Your task to perform on an android device: Go to privacy settings Image 0: 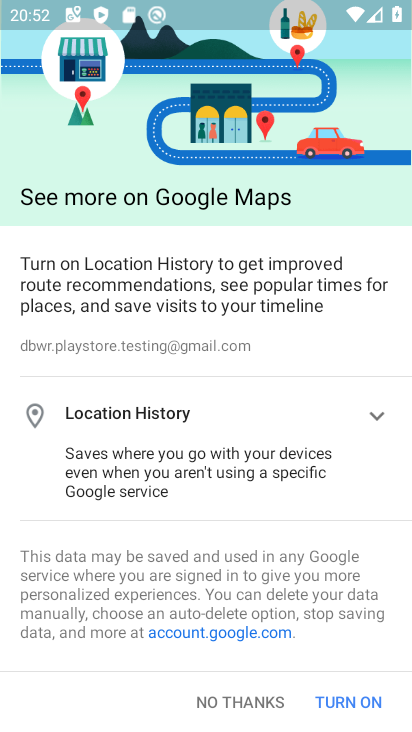
Step 0: press back button
Your task to perform on an android device: Go to privacy settings Image 1: 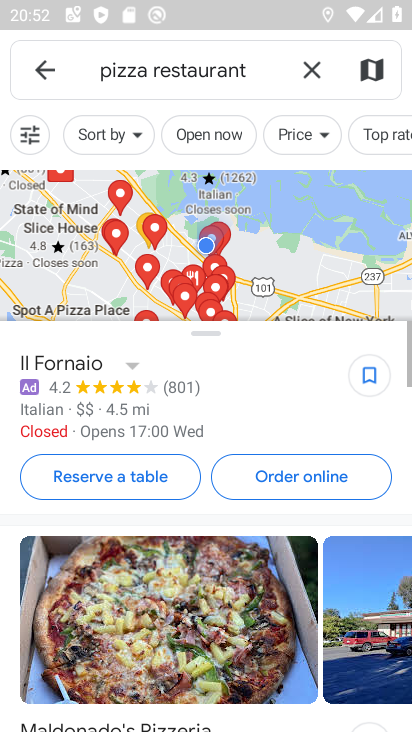
Step 1: press back button
Your task to perform on an android device: Go to privacy settings Image 2: 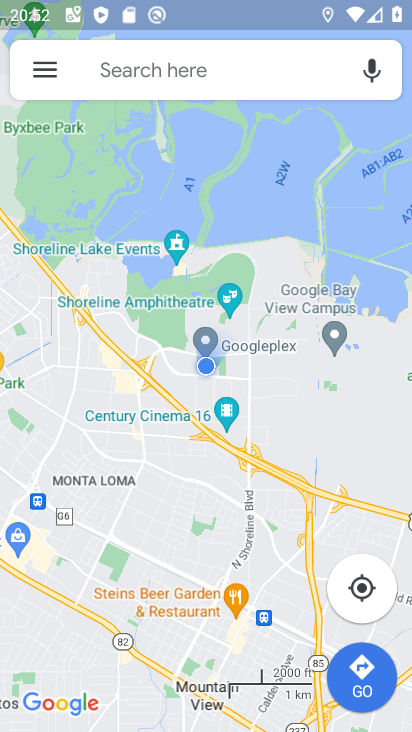
Step 2: press home button
Your task to perform on an android device: Go to privacy settings Image 3: 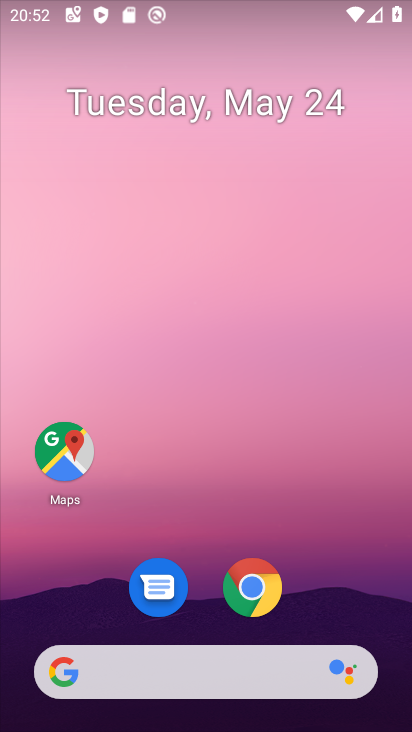
Step 3: drag from (313, 594) to (250, 22)
Your task to perform on an android device: Go to privacy settings Image 4: 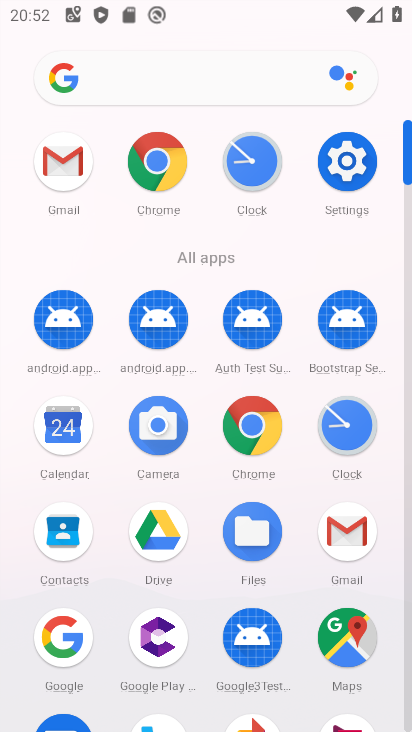
Step 4: click (254, 420)
Your task to perform on an android device: Go to privacy settings Image 5: 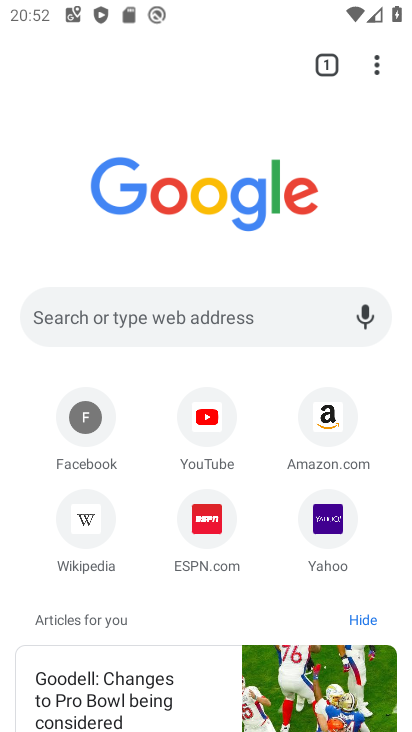
Step 5: drag from (377, 60) to (154, 537)
Your task to perform on an android device: Go to privacy settings Image 6: 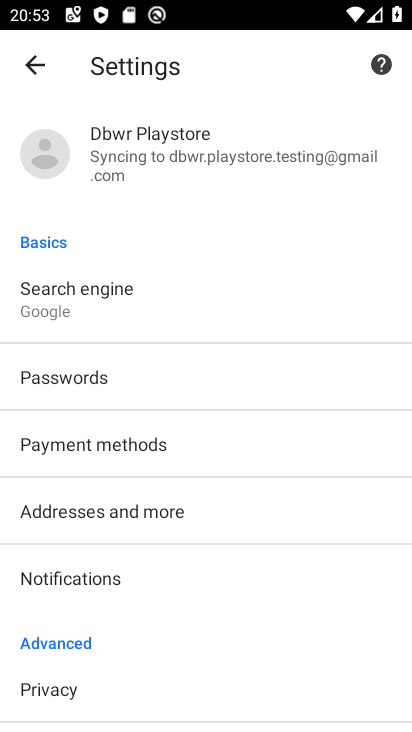
Step 6: drag from (166, 619) to (174, 225)
Your task to perform on an android device: Go to privacy settings Image 7: 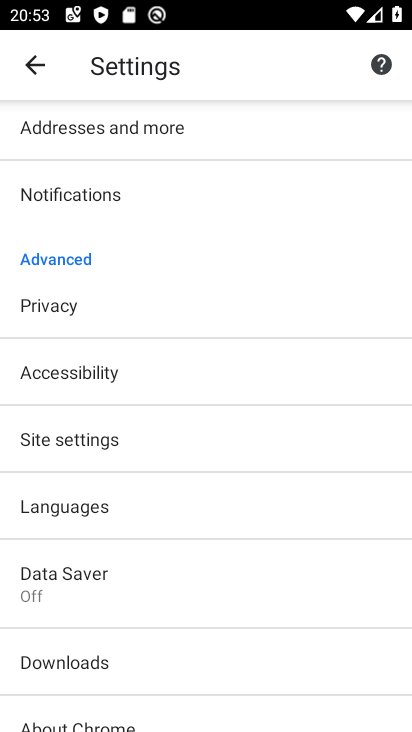
Step 7: click (69, 295)
Your task to perform on an android device: Go to privacy settings Image 8: 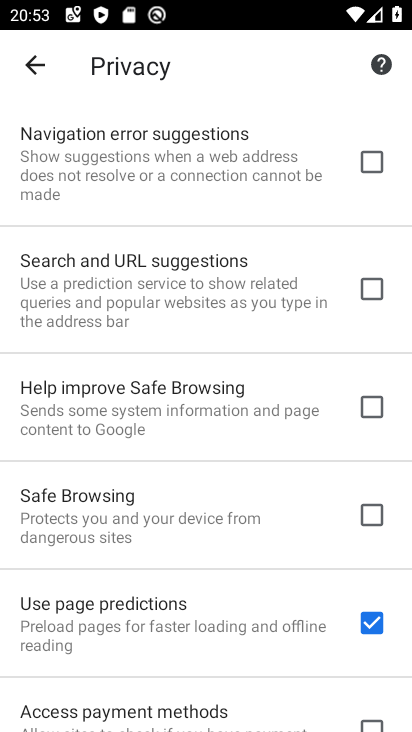
Step 8: task complete